Your task to perform on an android device: Open the phone app and click the voicemail tab. Image 0: 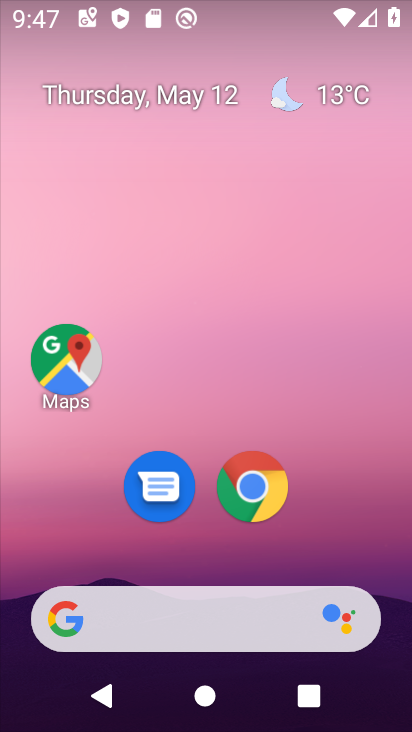
Step 0: drag from (355, 514) to (292, 181)
Your task to perform on an android device: Open the phone app and click the voicemail tab. Image 1: 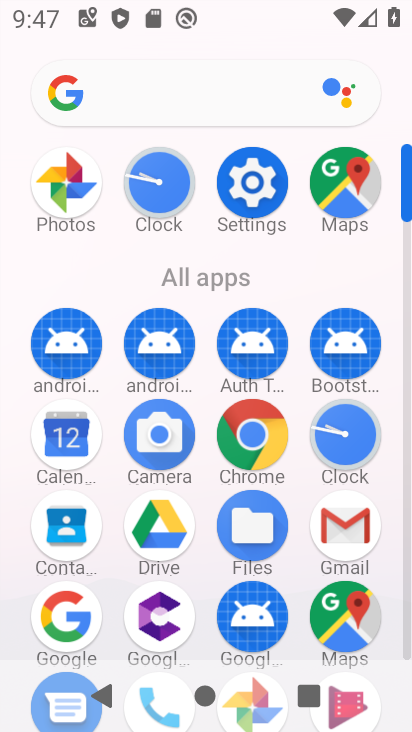
Step 1: drag from (292, 291) to (255, 181)
Your task to perform on an android device: Open the phone app and click the voicemail tab. Image 2: 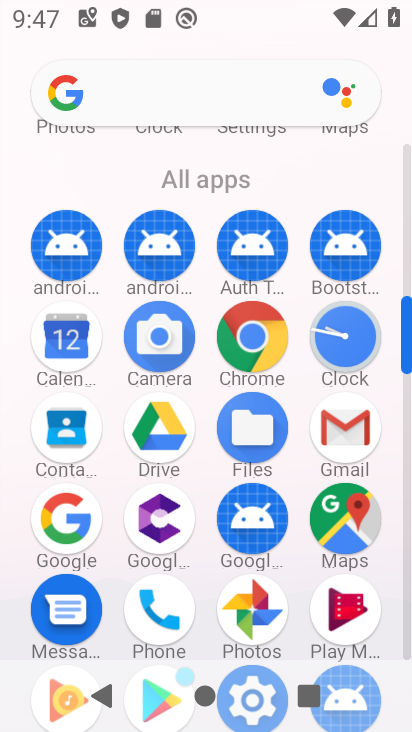
Step 2: click (154, 589)
Your task to perform on an android device: Open the phone app and click the voicemail tab. Image 3: 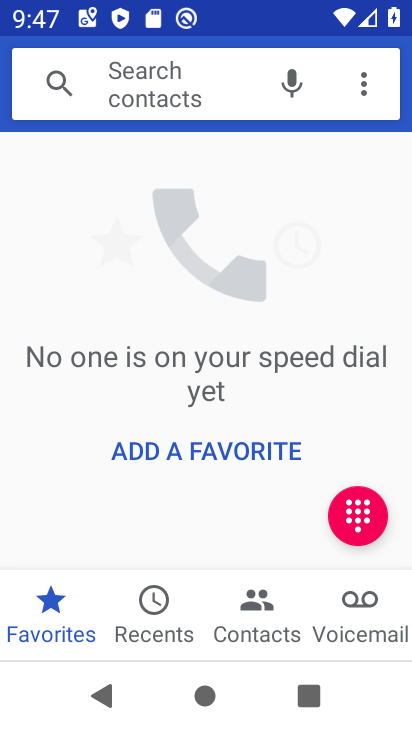
Step 3: click (356, 603)
Your task to perform on an android device: Open the phone app and click the voicemail tab. Image 4: 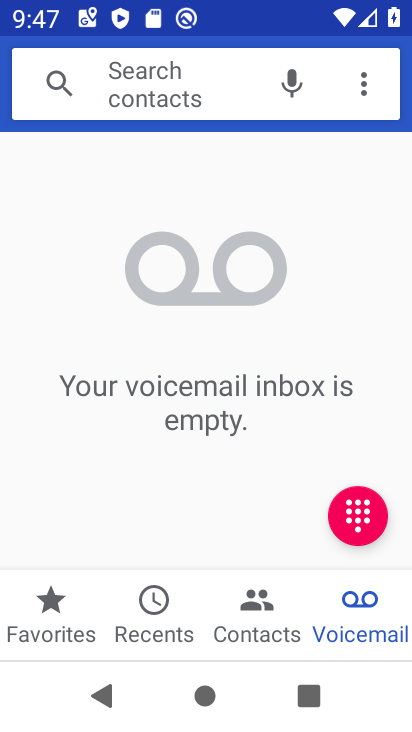
Step 4: task complete